Your task to perform on an android device: Search for flights from Tokyo to Seoul Image 0: 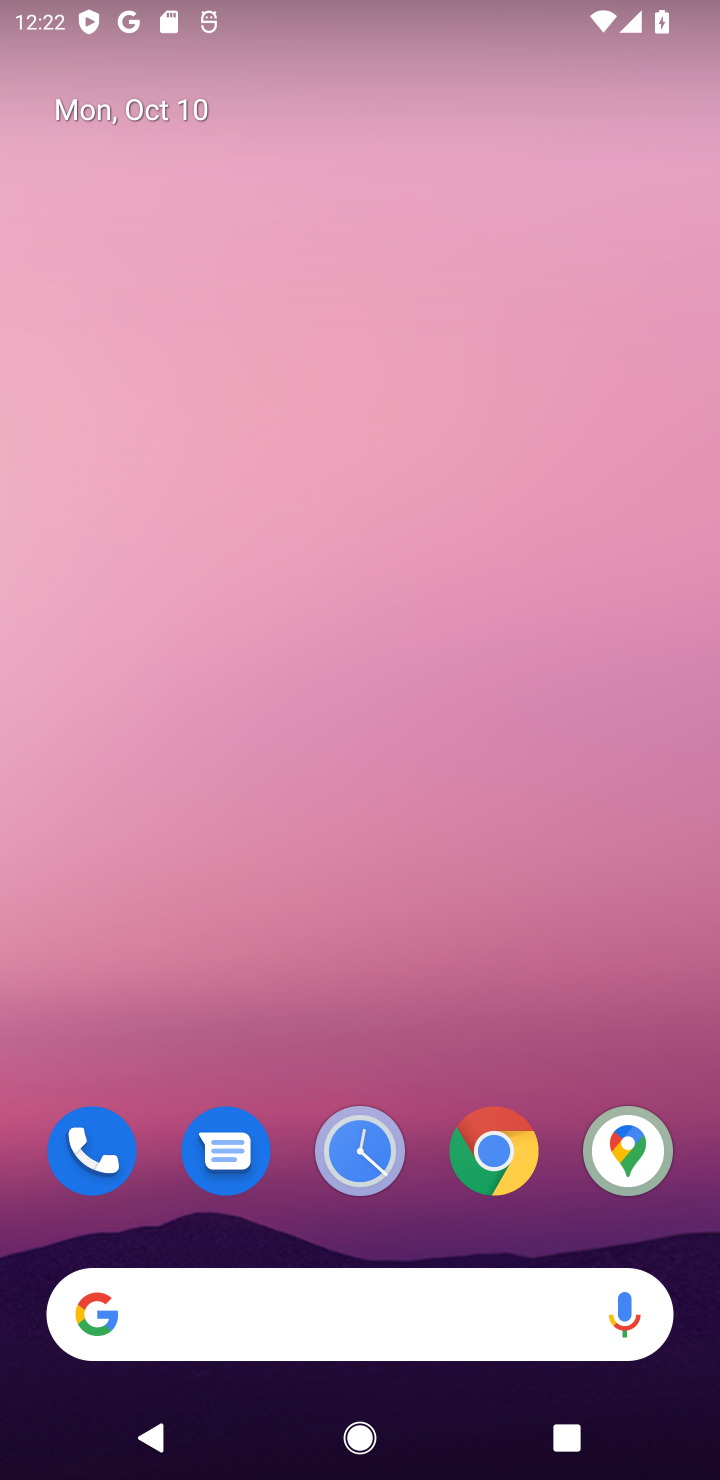
Step 0: click (395, 1317)
Your task to perform on an android device: Search for flights from Tokyo to Seoul Image 1: 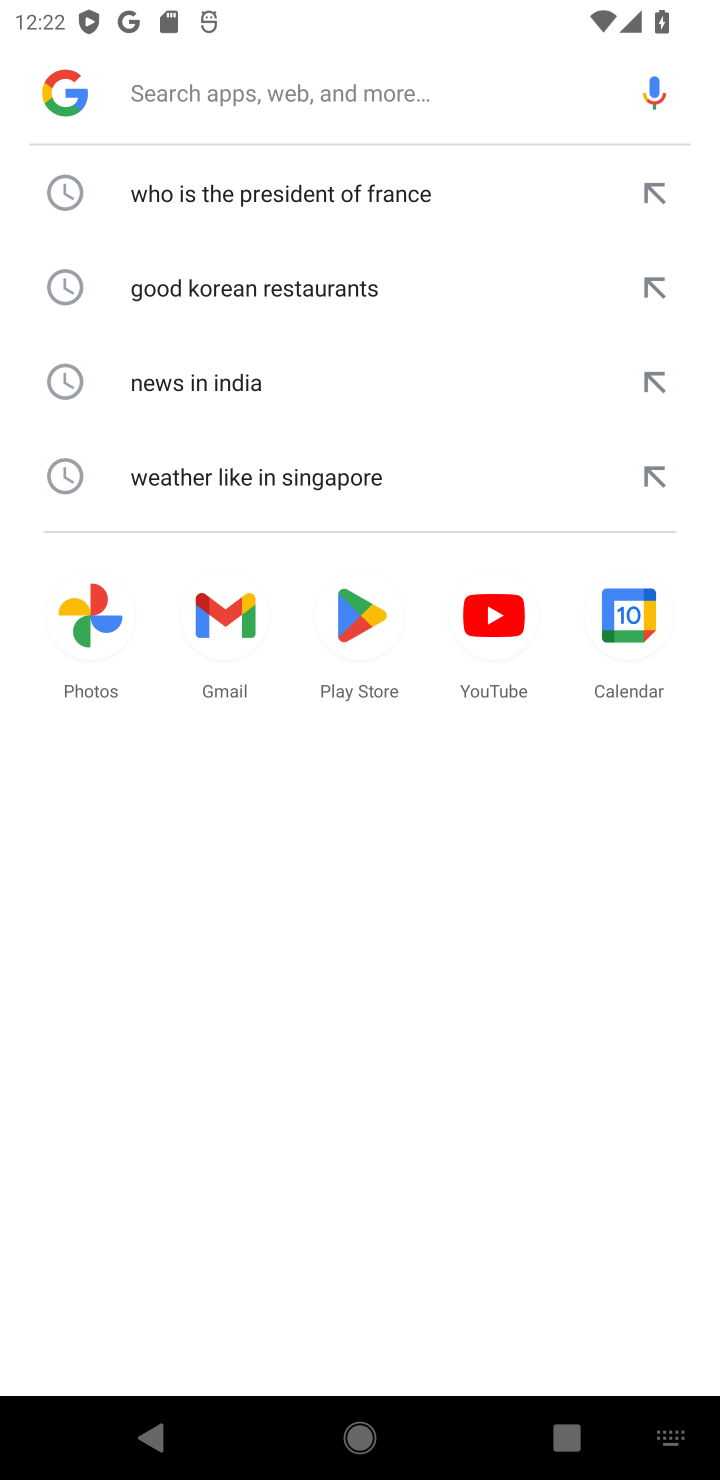
Step 1: type "Search for flights from Tokyo to Seoul"
Your task to perform on an android device: Search for flights from Tokyo to Seoul Image 2: 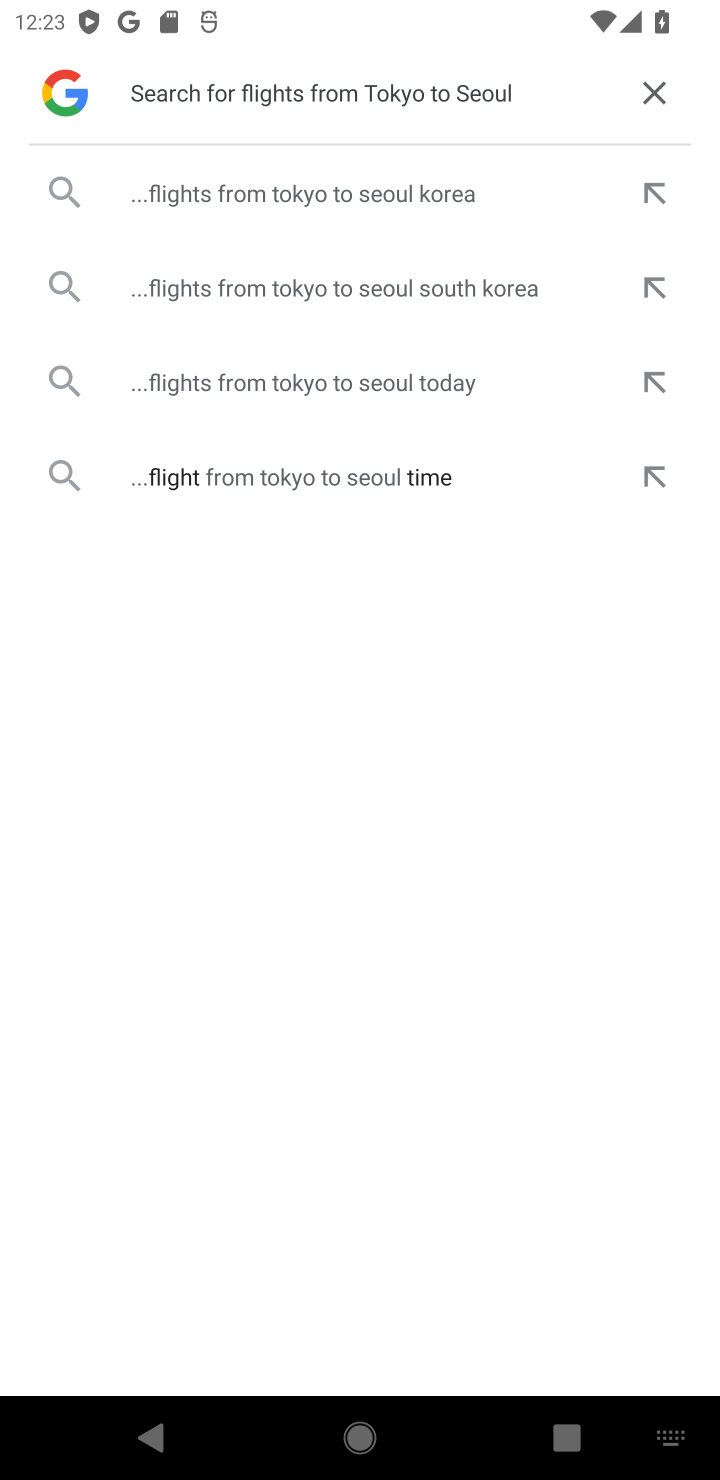
Step 2: click (336, 376)
Your task to perform on an android device: Search for flights from Tokyo to Seoul Image 3: 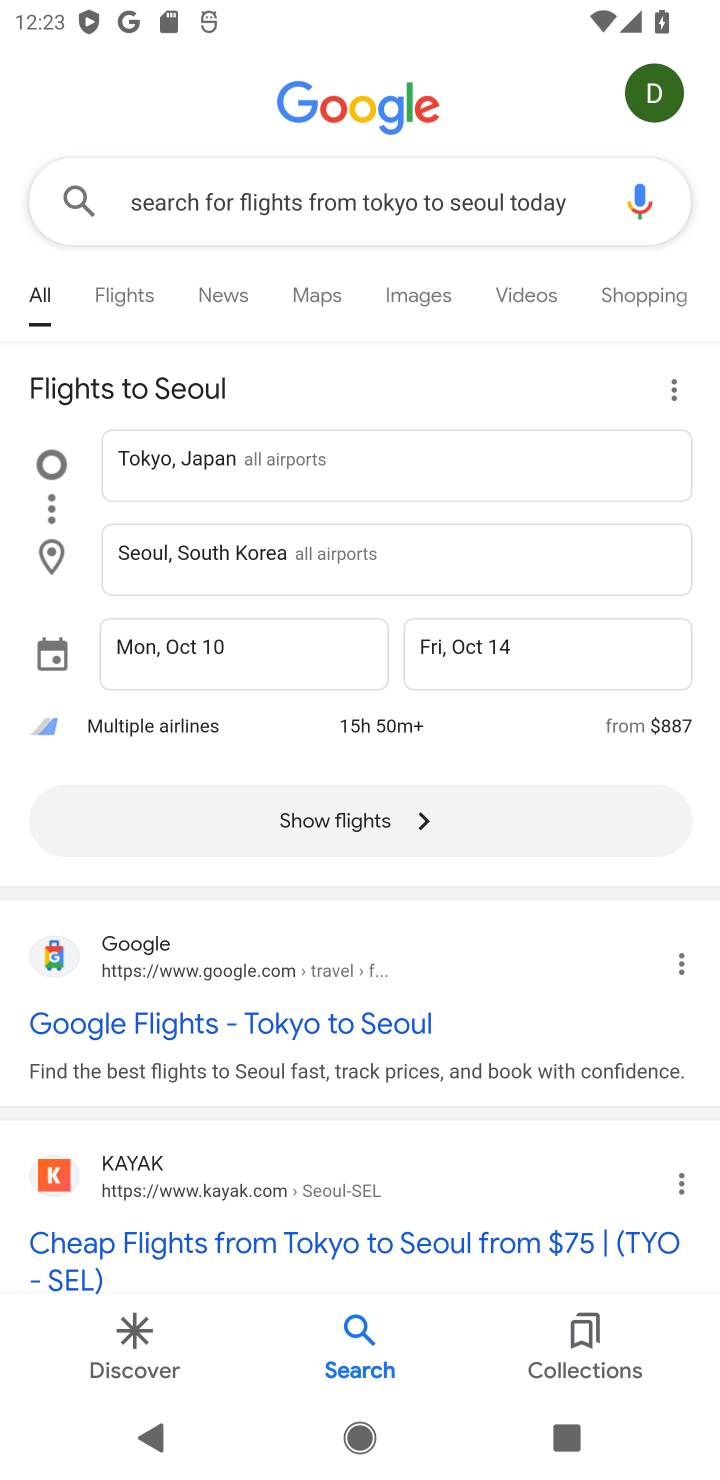
Step 3: click (356, 812)
Your task to perform on an android device: Search for flights from Tokyo to Seoul Image 4: 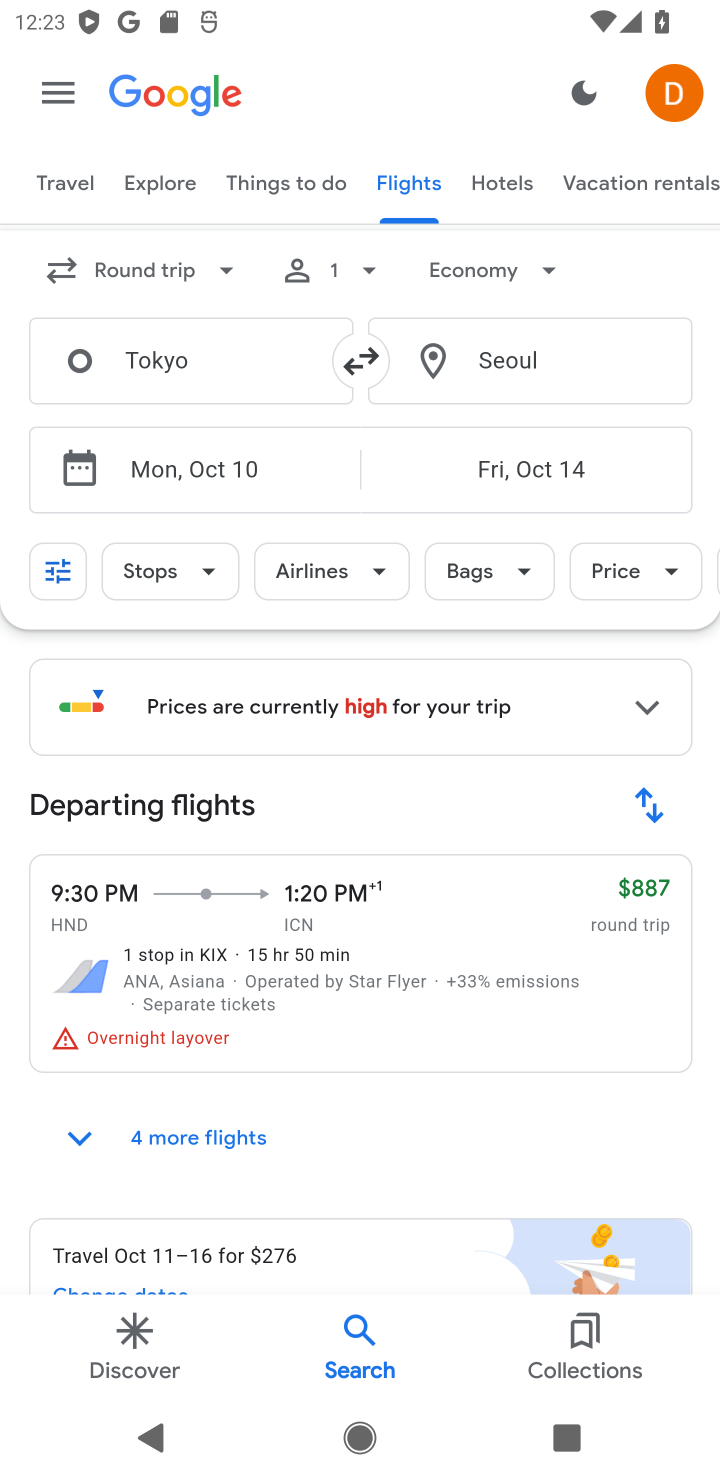
Step 4: task complete